Your task to perform on an android device: Go to sound settings Image 0: 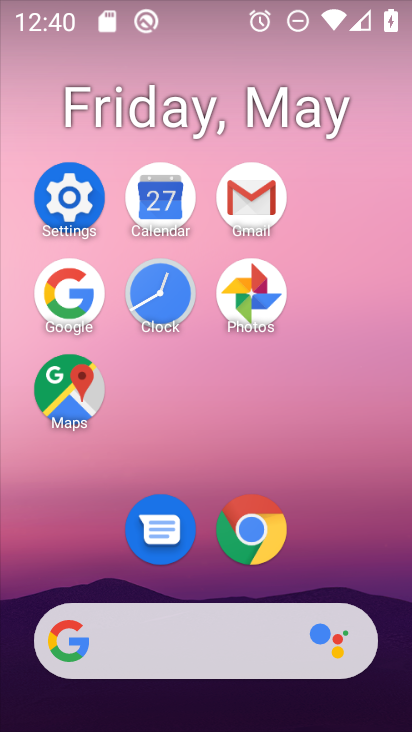
Step 0: click (88, 187)
Your task to perform on an android device: Go to sound settings Image 1: 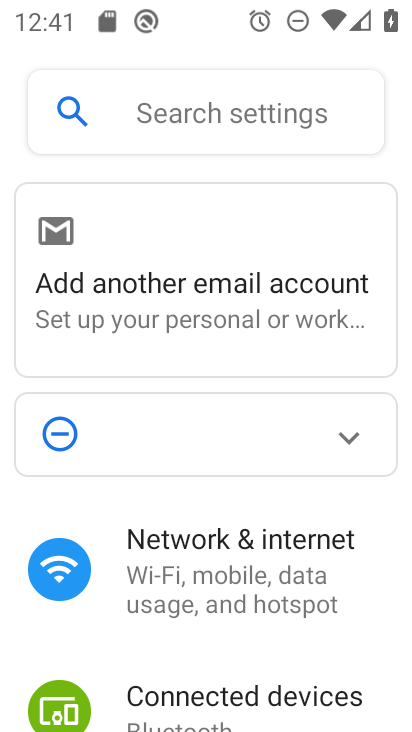
Step 1: drag from (264, 607) to (282, 145)
Your task to perform on an android device: Go to sound settings Image 2: 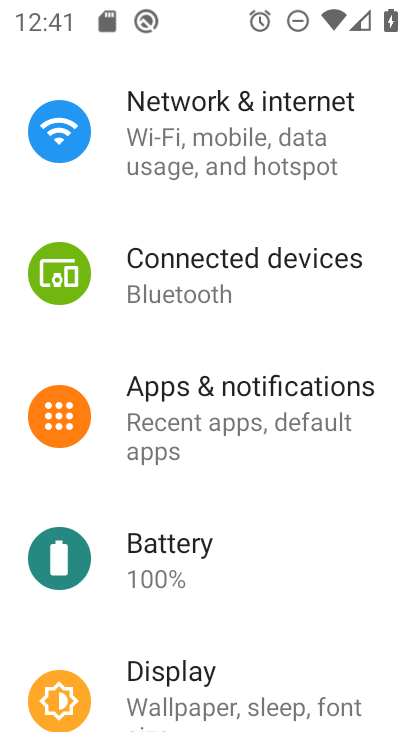
Step 2: drag from (234, 532) to (277, 186)
Your task to perform on an android device: Go to sound settings Image 3: 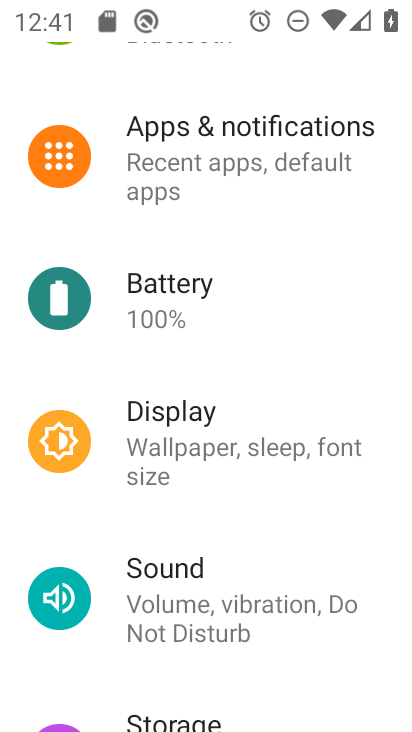
Step 3: click (221, 606)
Your task to perform on an android device: Go to sound settings Image 4: 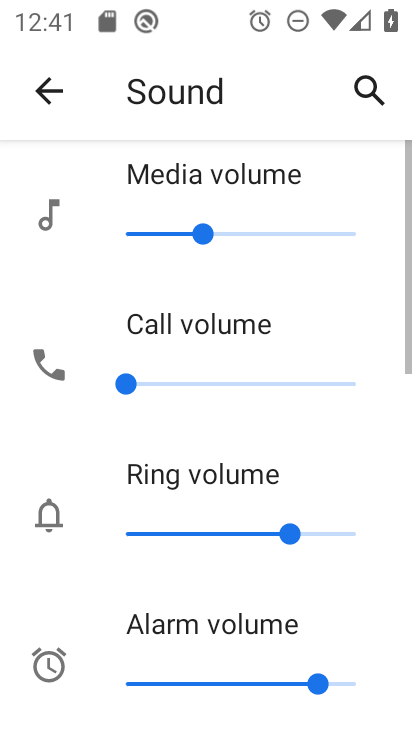
Step 4: task complete